Your task to perform on an android device: move an email to a new category in the gmail app Image 0: 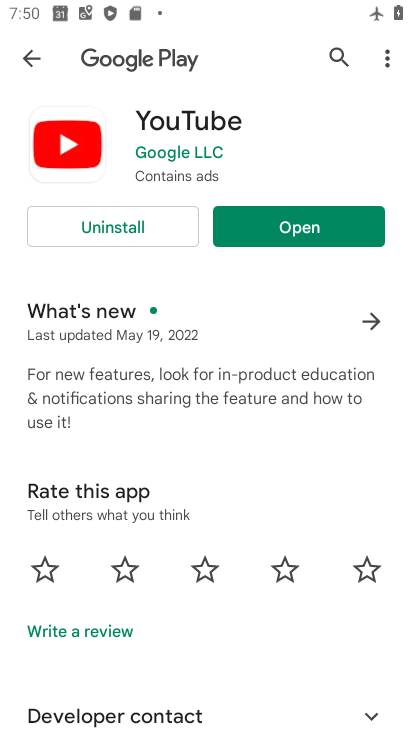
Step 0: press home button
Your task to perform on an android device: move an email to a new category in the gmail app Image 1: 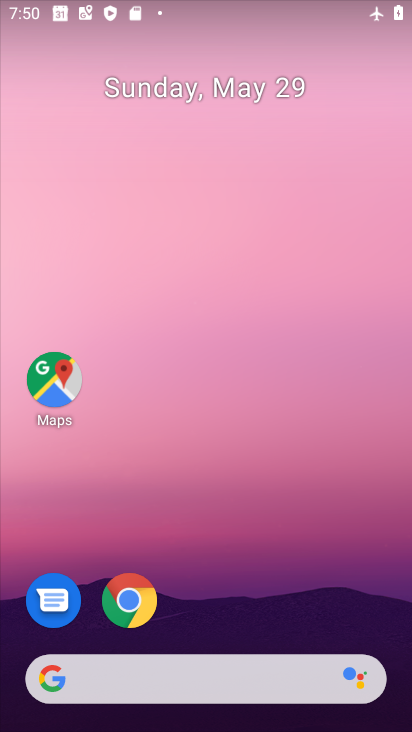
Step 1: drag from (198, 562) to (236, 263)
Your task to perform on an android device: move an email to a new category in the gmail app Image 2: 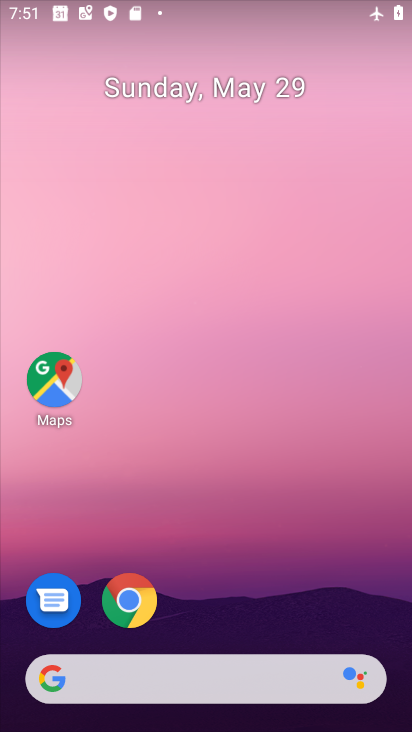
Step 2: drag from (201, 631) to (283, 0)
Your task to perform on an android device: move an email to a new category in the gmail app Image 3: 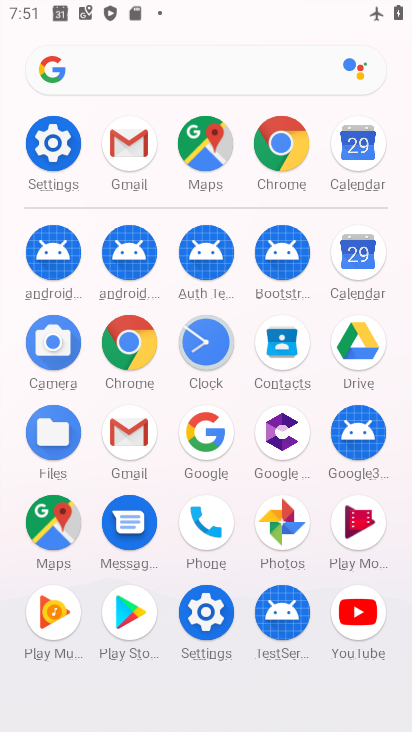
Step 3: click (126, 442)
Your task to perform on an android device: move an email to a new category in the gmail app Image 4: 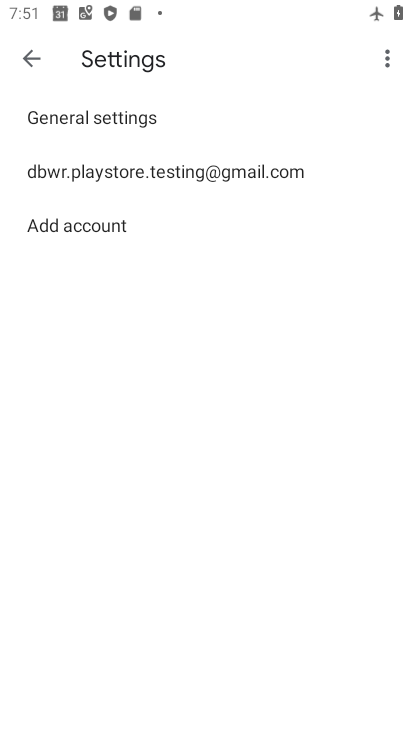
Step 4: click (36, 48)
Your task to perform on an android device: move an email to a new category in the gmail app Image 5: 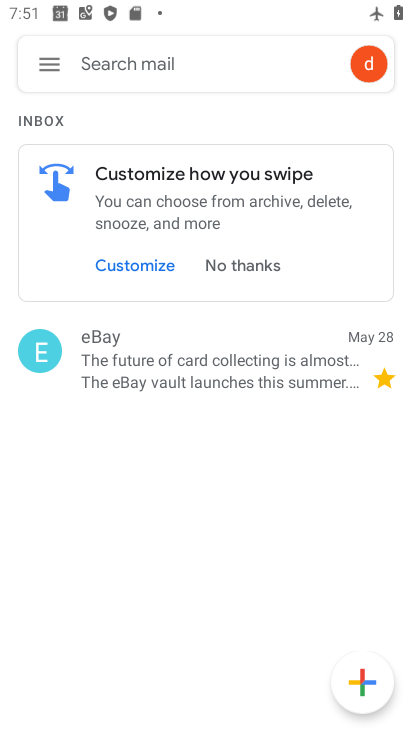
Step 5: click (52, 357)
Your task to perform on an android device: move an email to a new category in the gmail app Image 6: 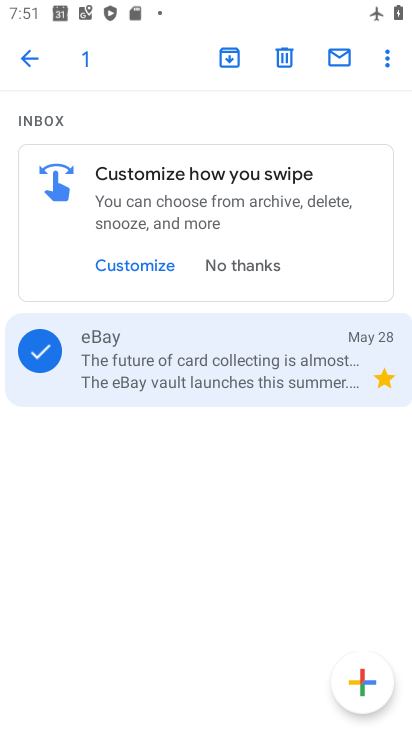
Step 6: click (391, 62)
Your task to perform on an android device: move an email to a new category in the gmail app Image 7: 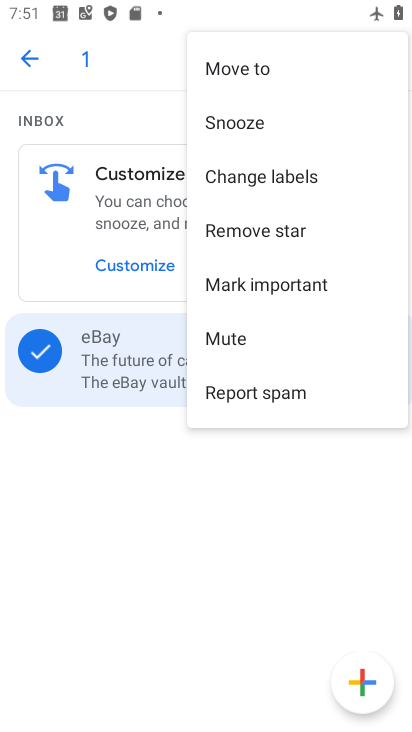
Step 7: click (263, 68)
Your task to perform on an android device: move an email to a new category in the gmail app Image 8: 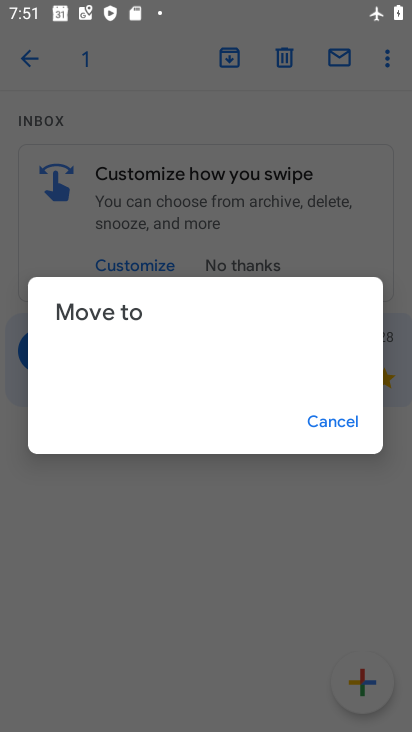
Step 8: click (341, 417)
Your task to perform on an android device: move an email to a new category in the gmail app Image 9: 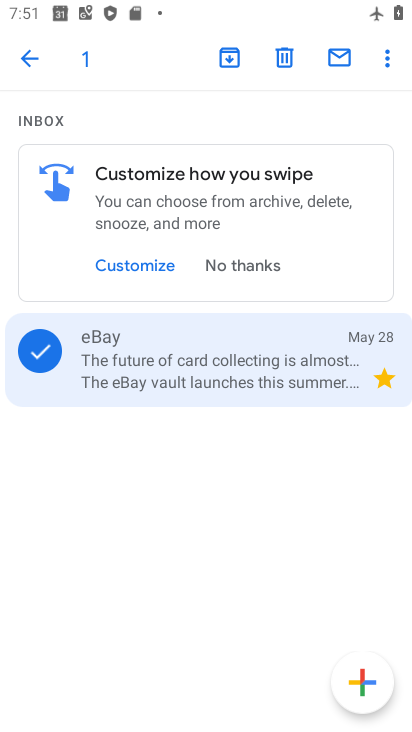
Step 9: click (388, 61)
Your task to perform on an android device: move an email to a new category in the gmail app Image 10: 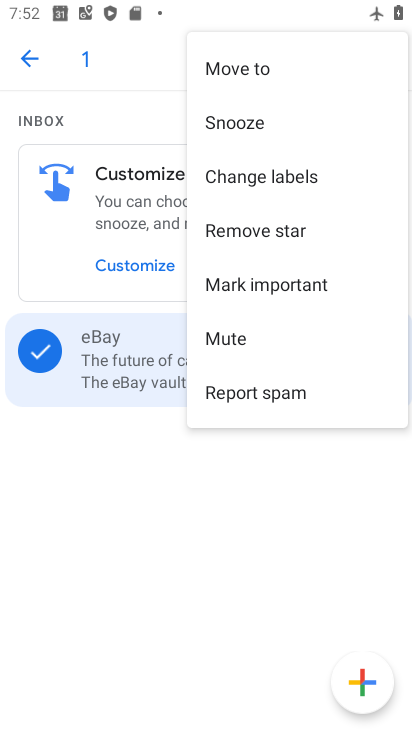
Step 10: click (265, 184)
Your task to perform on an android device: move an email to a new category in the gmail app Image 11: 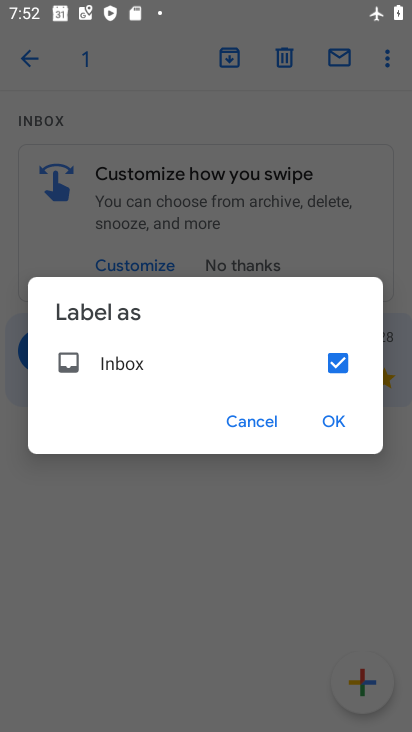
Step 11: click (326, 371)
Your task to perform on an android device: move an email to a new category in the gmail app Image 12: 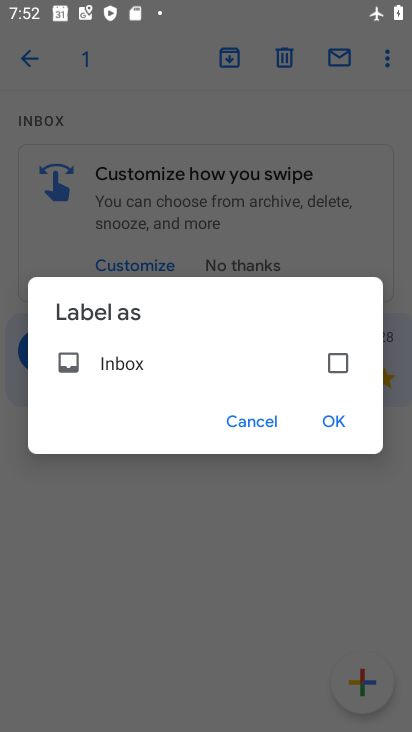
Step 12: click (331, 430)
Your task to perform on an android device: move an email to a new category in the gmail app Image 13: 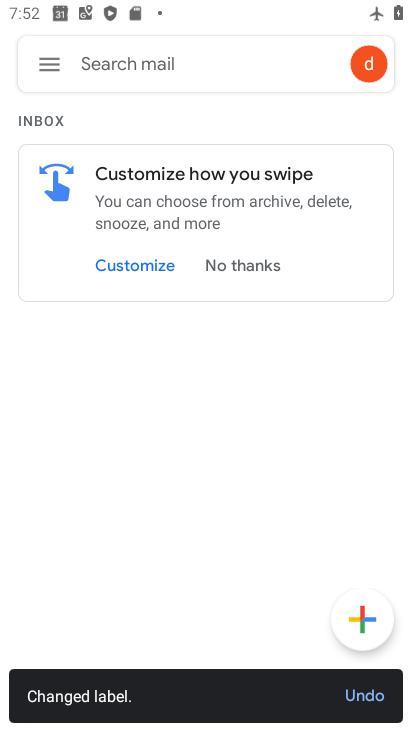
Step 13: task complete